Your task to perform on an android device: Show me recent news Image 0: 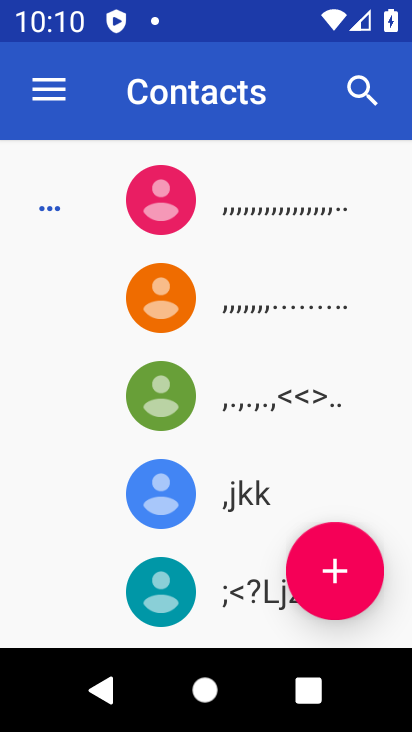
Step 0: press home button
Your task to perform on an android device: Show me recent news Image 1: 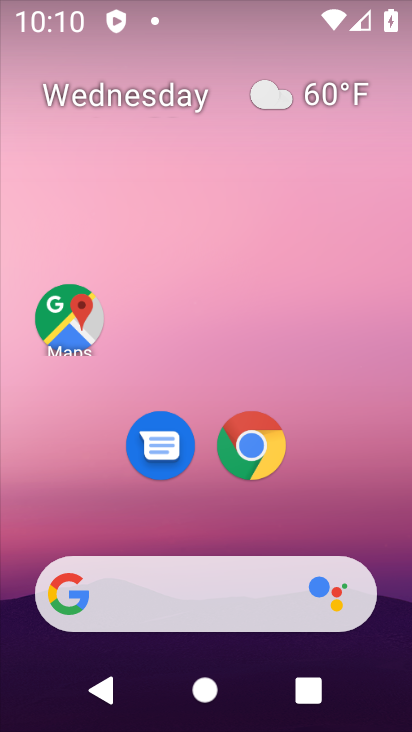
Step 1: click (203, 588)
Your task to perform on an android device: Show me recent news Image 2: 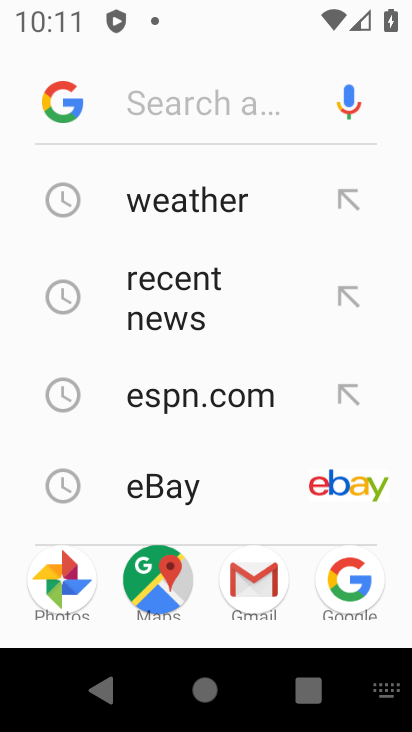
Step 2: click (192, 298)
Your task to perform on an android device: Show me recent news Image 3: 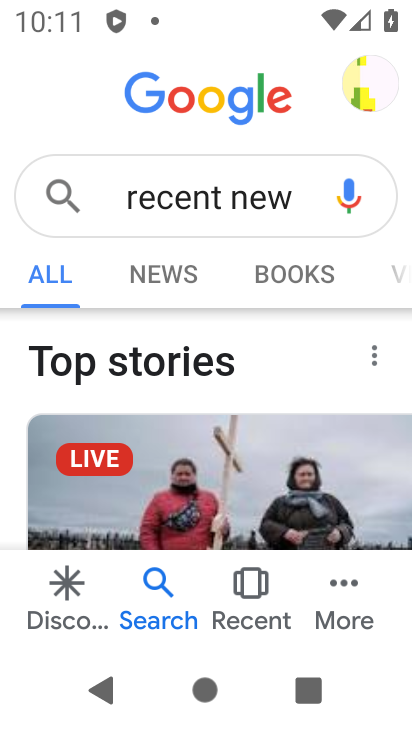
Step 3: task complete